Your task to perform on an android device: toggle wifi Image 0: 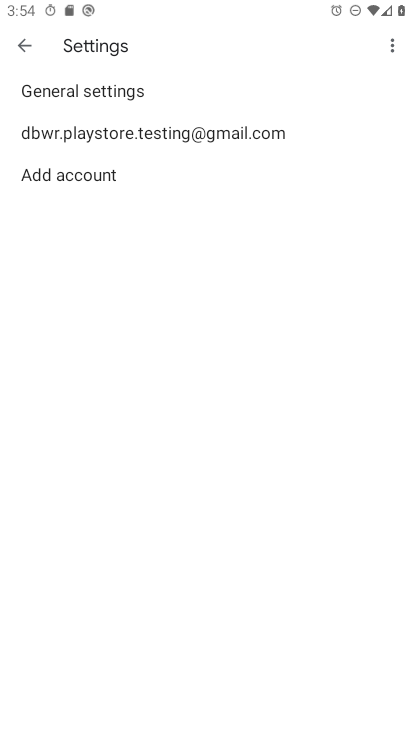
Step 0: press home button
Your task to perform on an android device: toggle wifi Image 1: 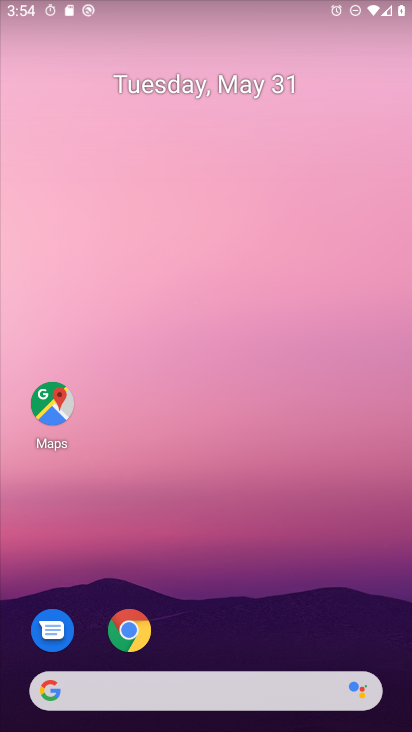
Step 1: drag from (221, 663) to (223, 5)
Your task to perform on an android device: toggle wifi Image 2: 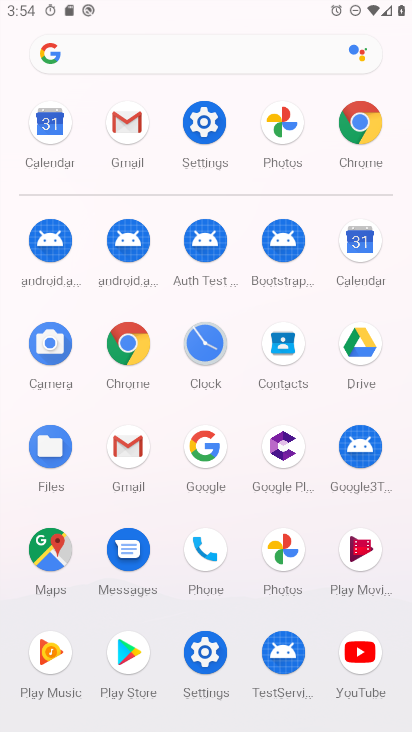
Step 2: click (199, 123)
Your task to perform on an android device: toggle wifi Image 3: 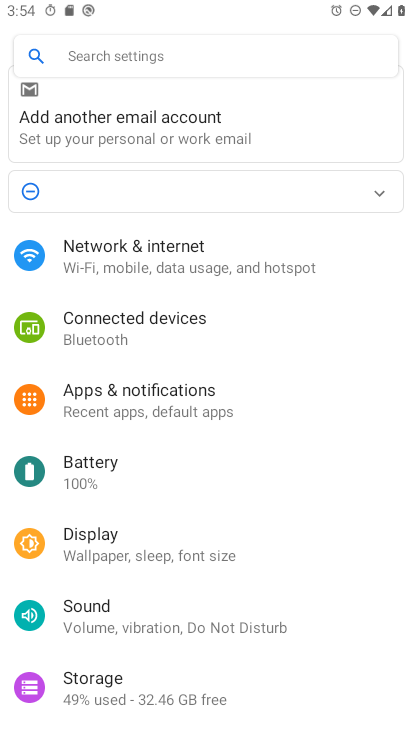
Step 3: click (165, 246)
Your task to perform on an android device: toggle wifi Image 4: 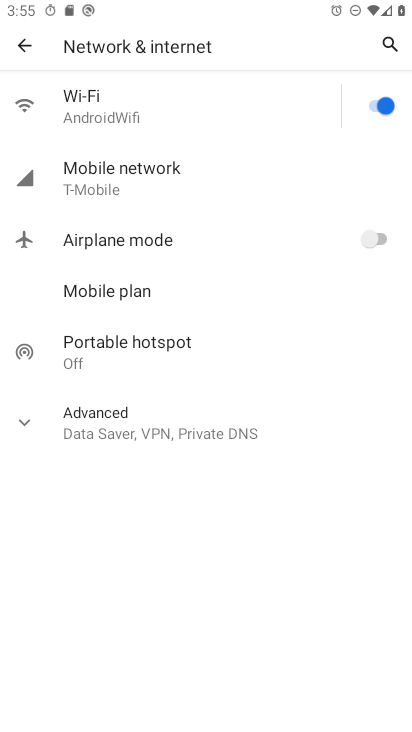
Step 4: click (377, 100)
Your task to perform on an android device: toggle wifi Image 5: 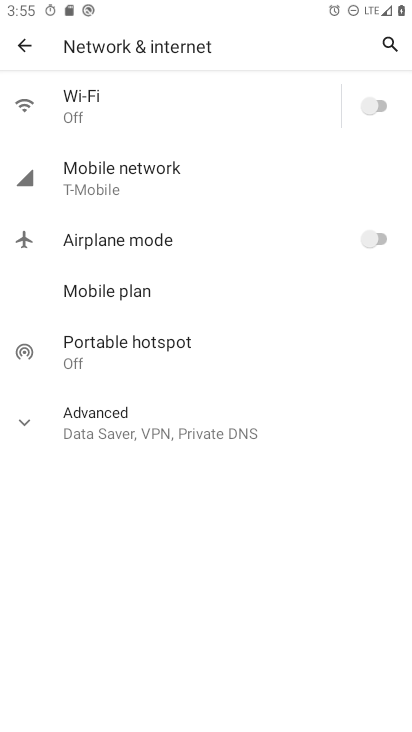
Step 5: task complete